Your task to perform on an android device: open a bookmark in the chrome app Image 0: 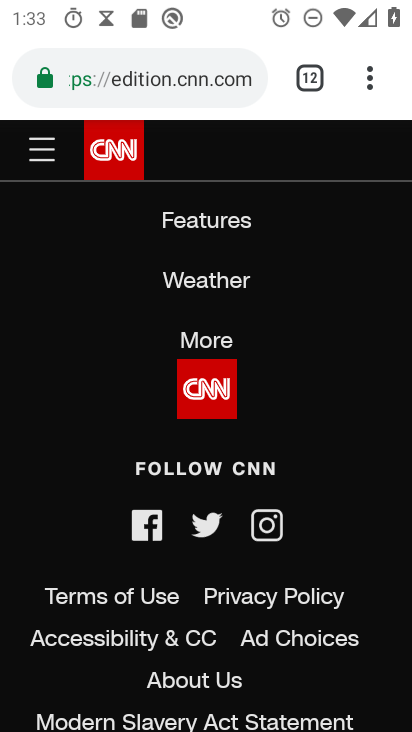
Step 0: drag from (369, 74) to (129, 284)
Your task to perform on an android device: open a bookmark in the chrome app Image 1: 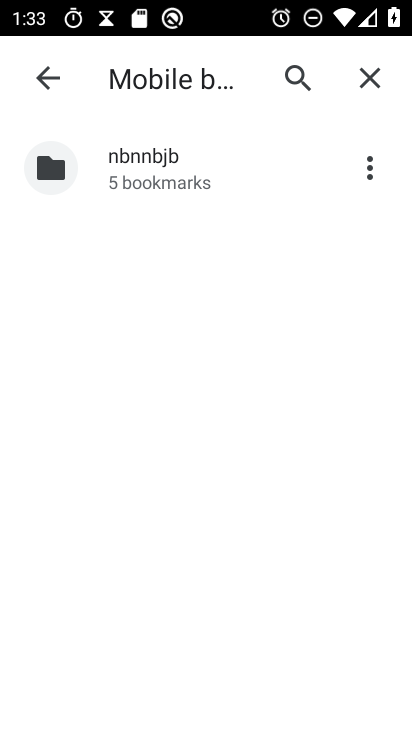
Step 1: task complete